Your task to perform on an android device: turn on sleep mode Image 0: 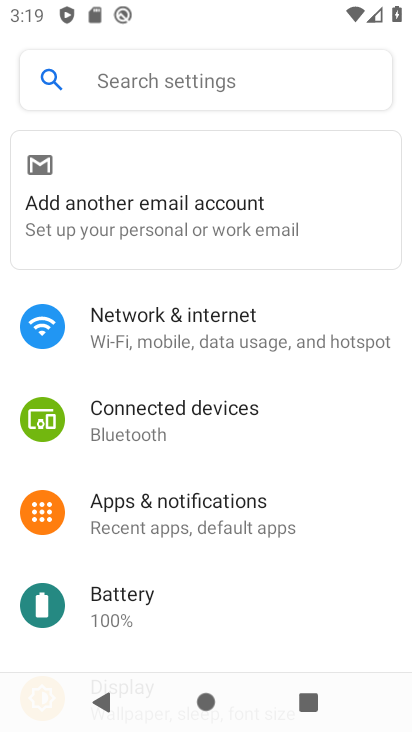
Step 0: drag from (321, 528) to (293, 127)
Your task to perform on an android device: turn on sleep mode Image 1: 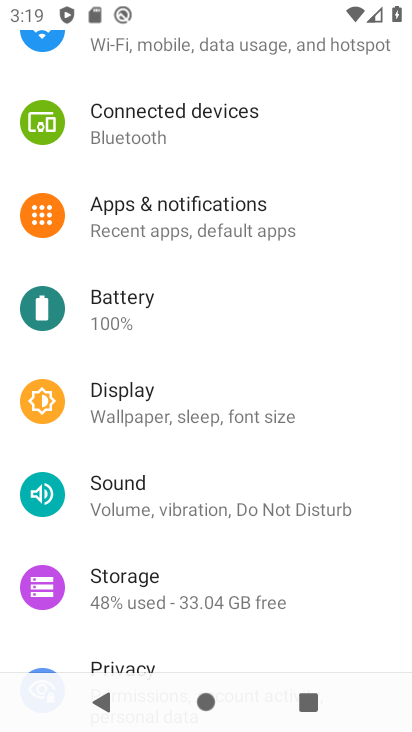
Step 1: drag from (267, 559) to (245, 318)
Your task to perform on an android device: turn on sleep mode Image 2: 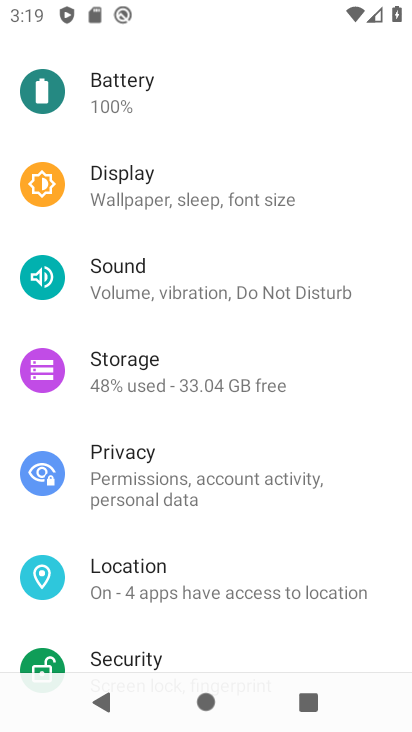
Step 2: click (219, 192)
Your task to perform on an android device: turn on sleep mode Image 3: 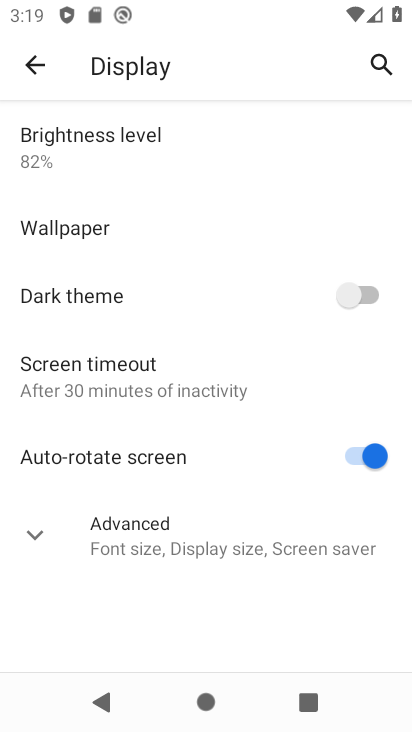
Step 3: click (229, 552)
Your task to perform on an android device: turn on sleep mode Image 4: 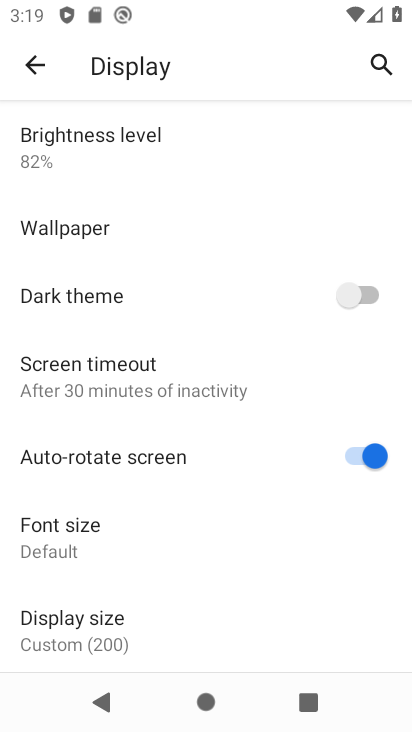
Step 4: task complete